Your task to perform on an android device: find which apps use the phone's location Image 0: 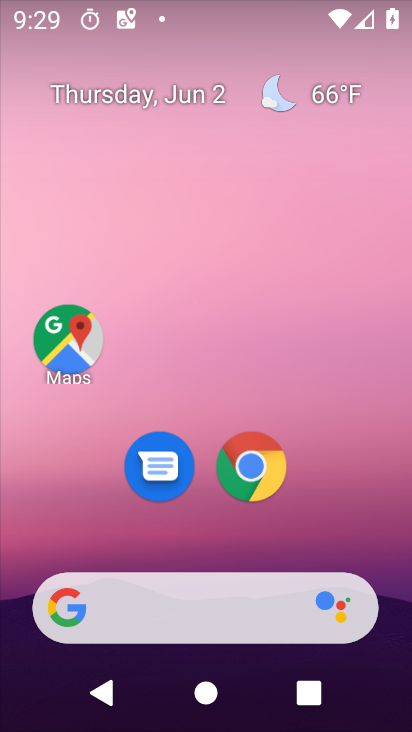
Step 0: drag from (46, 495) to (255, 174)
Your task to perform on an android device: find which apps use the phone's location Image 1: 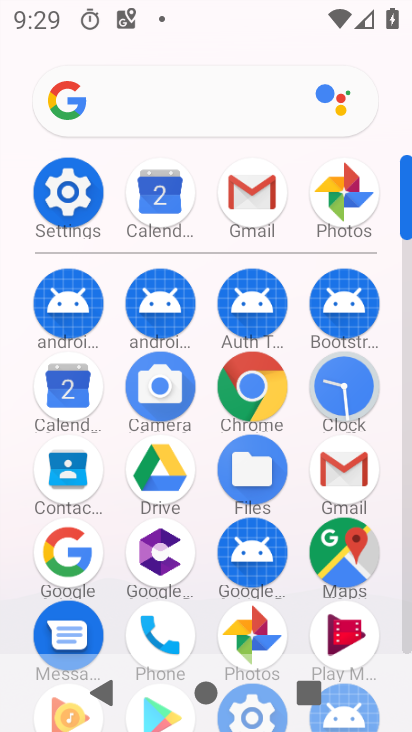
Step 1: click (55, 207)
Your task to perform on an android device: find which apps use the phone's location Image 2: 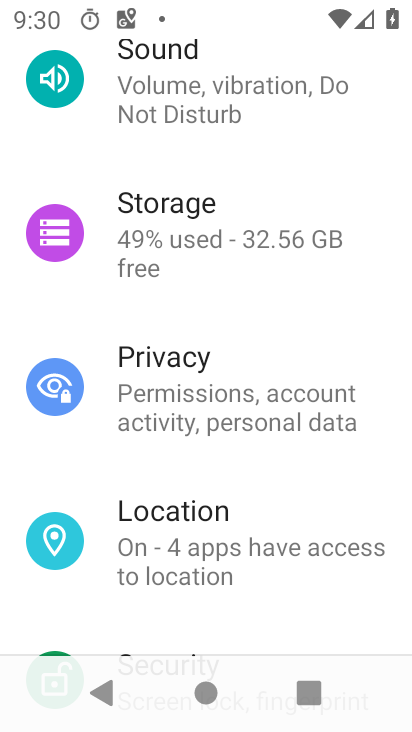
Step 2: click (192, 540)
Your task to perform on an android device: find which apps use the phone's location Image 3: 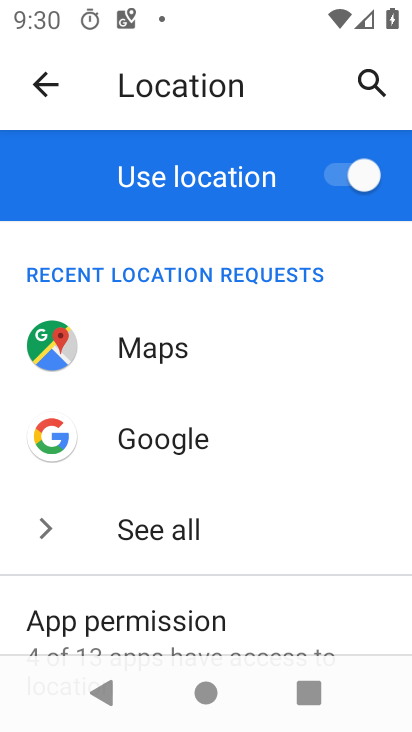
Step 3: click (52, 629)
Your task to perform on an android device: find which apps use the phone's location Image 4: 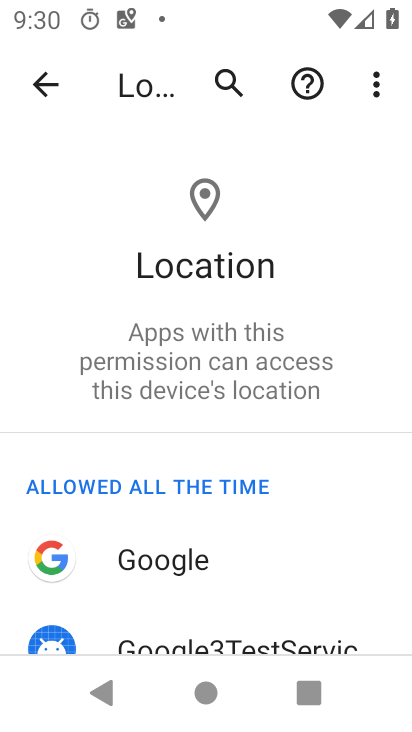
Step 4: task complete